Your task to perform on an android device: Open calendar and show me the fourth week of next month Image 0: 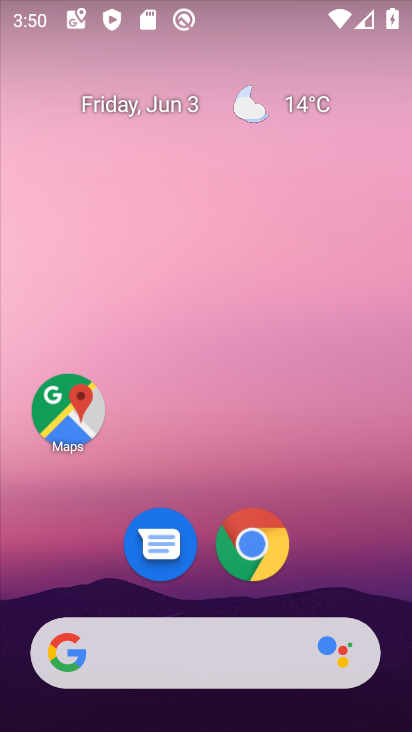
Step 0: drag from (405, 647) to (284, 11)
Your task to perform on an android device: Open calendar and show me the fourth week of next month Image 1: 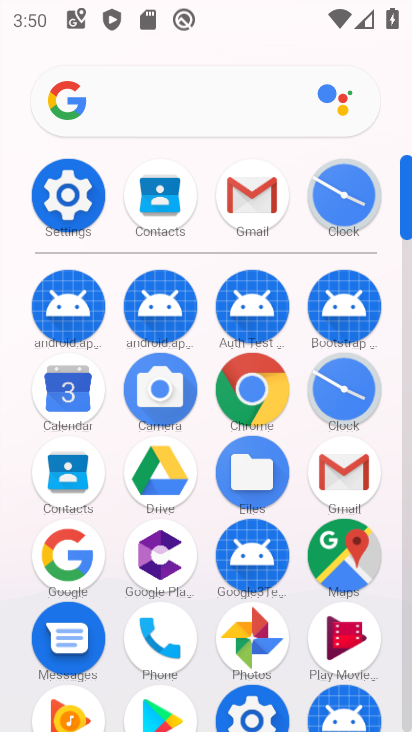
Step 1: click (405, 709)
Your task to perform on an android device: Open calendar and show me the fourth week of next month Image 2: 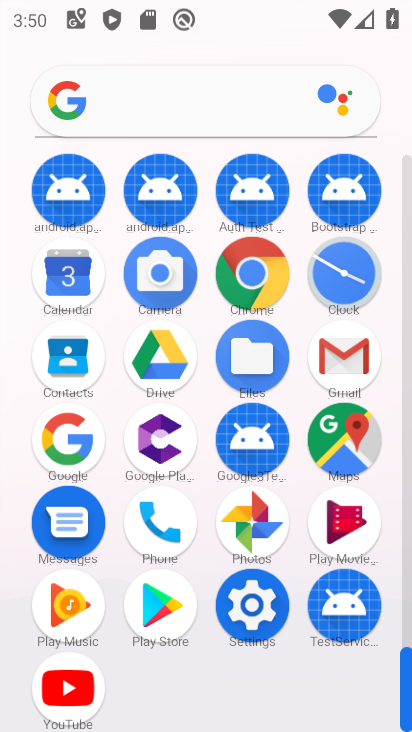
Step 2: click (67, 276)
Your task to perform on an android device: Open calendar and show me the fourth week of next month Image 3: 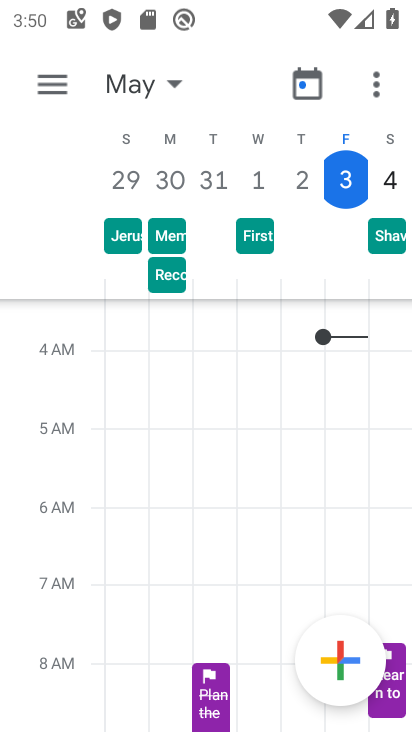
Step 3: click (53, 75)
Your task to perform on an android device: Open calendar and show me the fourth week of next month Image 4: 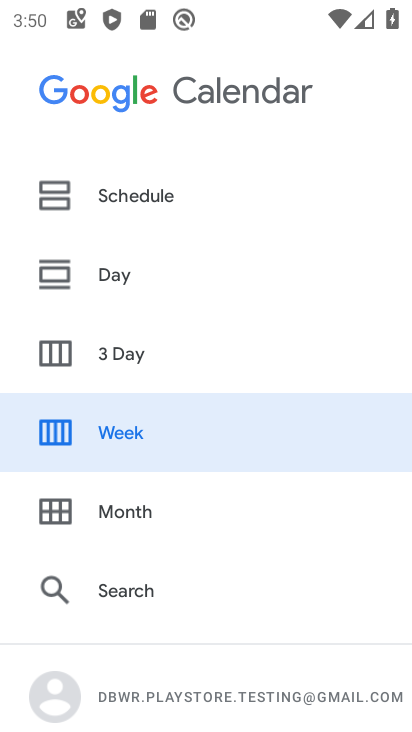
Step 4: click (141, 423)
Your task to perform on an android device: Open calendar and show me the fourth week of next month Image 5: 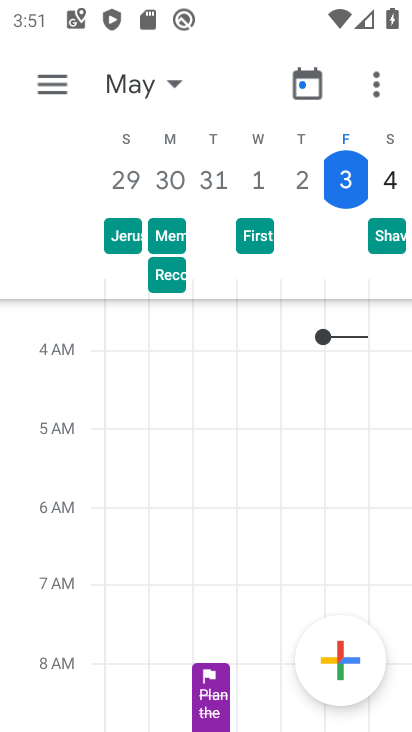
Step 5: click (175, 81)
Your task to perform on an android device: Open calendar and show me the fourth week of next month Image 6: 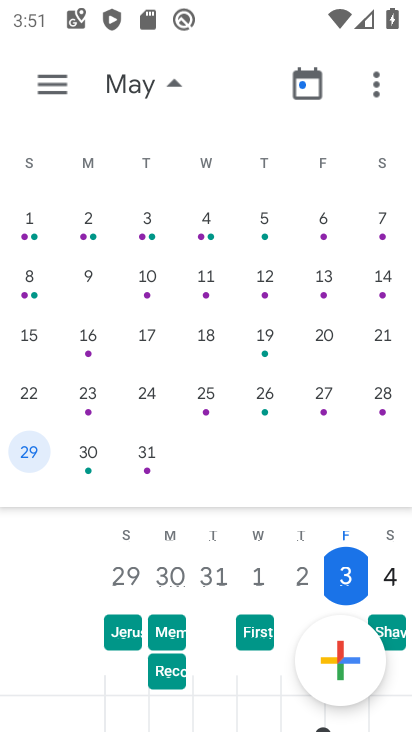
Step 6: drag from (386, 329) to (35, 302)
Your task to perform on an android device: Open calendar and show me the fourth week of next month Image 7: 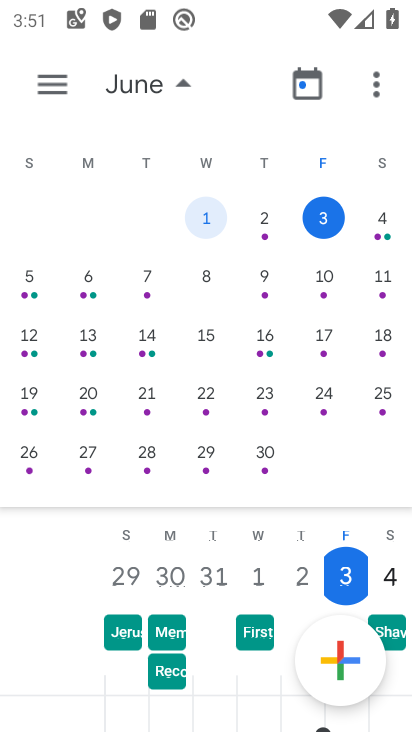
Step 7: drag from (380, 332) to (29, 271)
Your task to perform on an android device: Open calendar and show me the fourth week of next month Image 8: 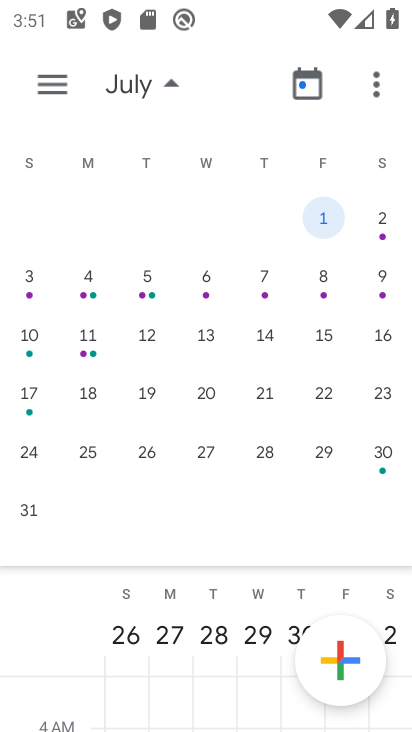
Step 8: click (33, 448)
Your task to perform on an android device: Open calendar and show me the fourth week of next month Image 9: 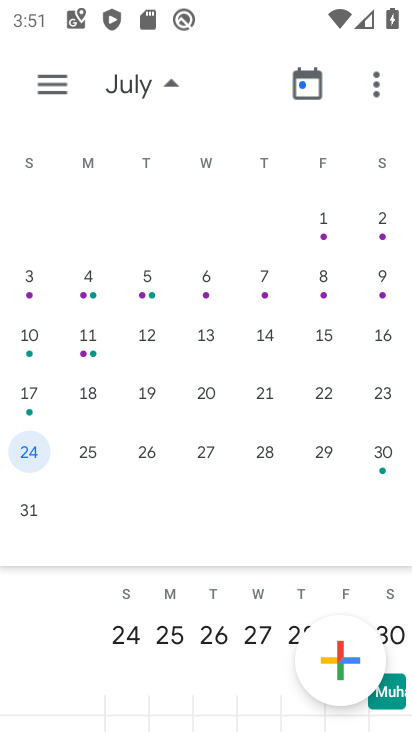
Step 9: task complete